Your task to perform on an android device: turn on wifi Image 0: 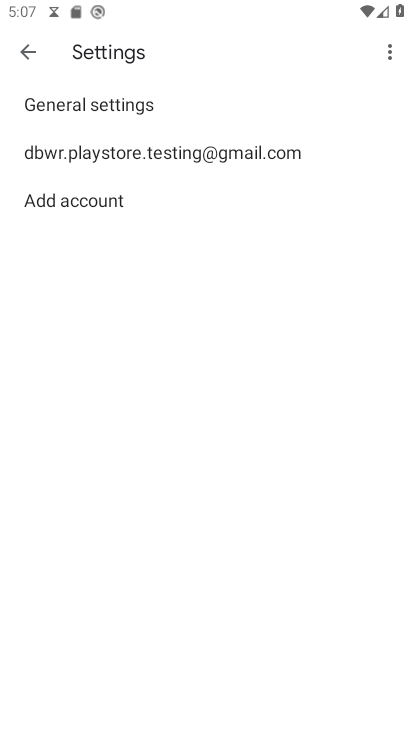
Step 0: press home button
Your task to perform on an android device: turn on wifi Image 1: 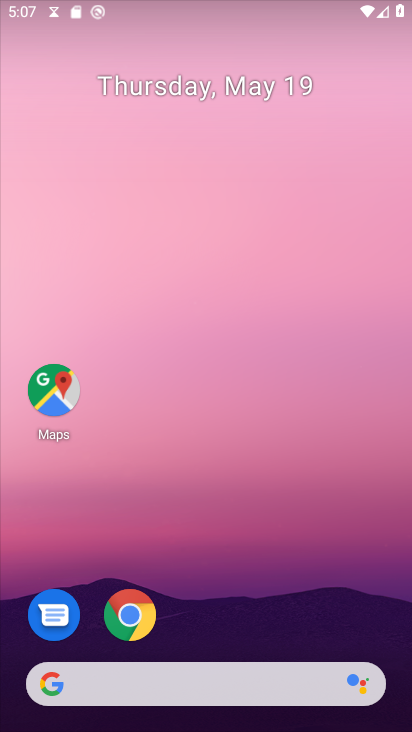
Step 1: drag from (299, 593) to (409, 568)
Your task to perform on an android device: turn on wifi Image 2: 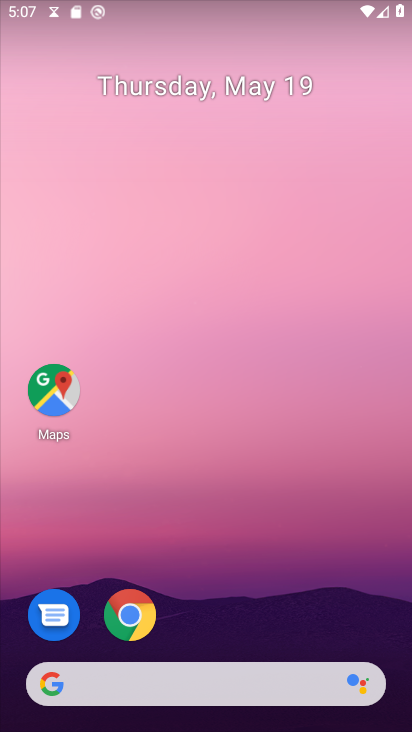
Step 2: click (280, 179)
Your task to perform on an android device: turn on wifi Image 3: 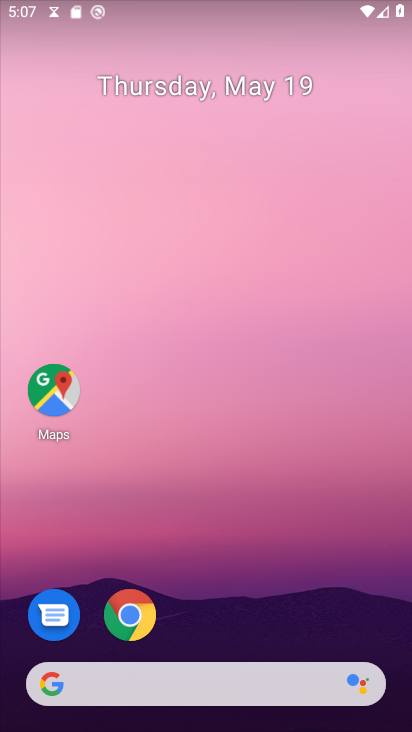
Step 3: drag from (268, 698) to (257, 79)
Your task to perform on an android device: turn on wifi Image 4: 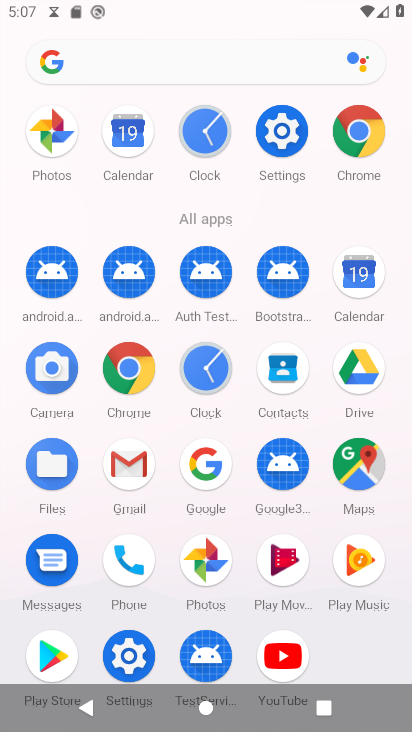
Step 4: click (281, 137)
Your task to perform on an android device: turn on wifi Image 5: 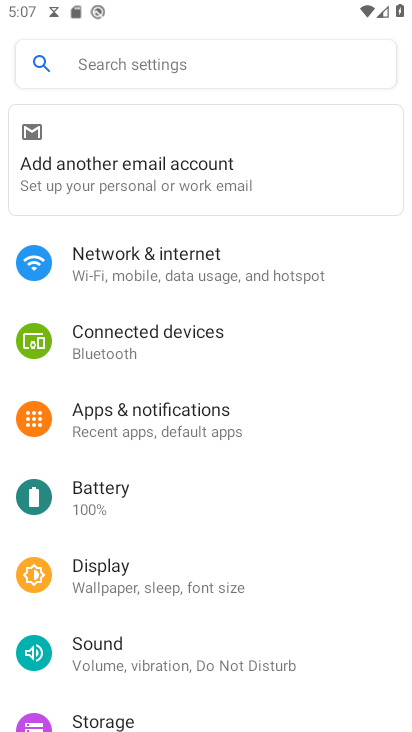
Step 5: click (211, 267)
Your task to perform on an android device: turn on wifi Image 6: 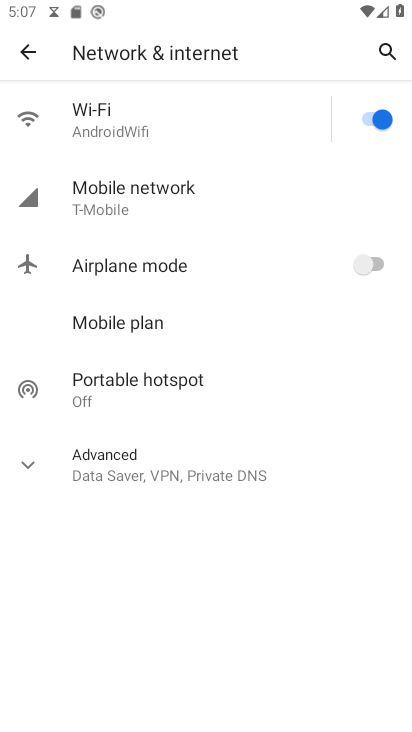
Step 6: task complete